Your task to perform on an android device: Open calendar and show me the fourth week of next month Image 0: 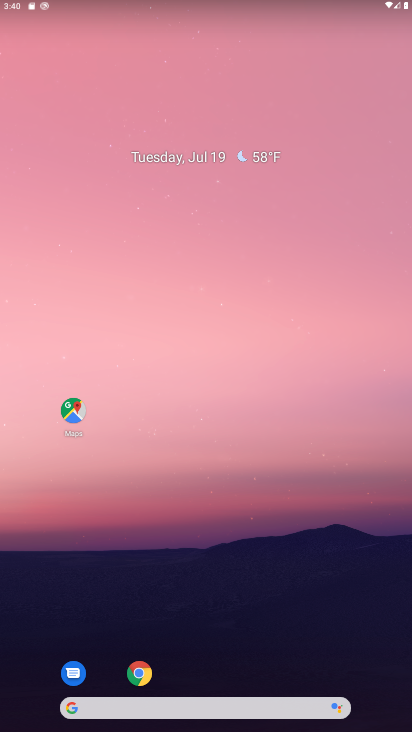
Step 0: drag from (153, 707) to (219, 176)
Your task to perform on an android device: Open calendar and show me the fourth week of next month Image 1: 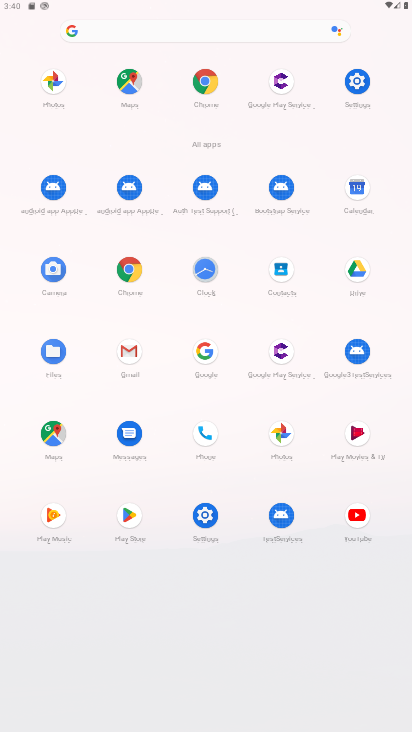
Step 1: click (364, 195)
Your task to perform on an android device: Open calendar and show me the fourth week of next month Image 2: 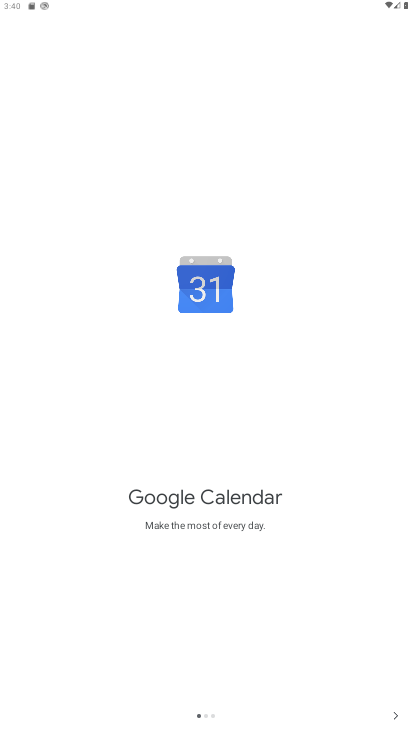
Step 2: click (393, 715)
Your task to perform on an android device: Open calendar and show me the fourth week of next month Image 3: 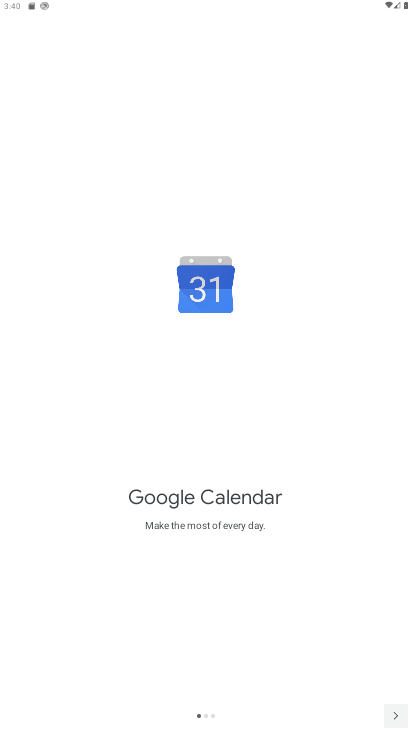
Step 3: click (393, 715)
Your task to perform on an android device: Open calendar and show me the fourth week of next month Image 4: 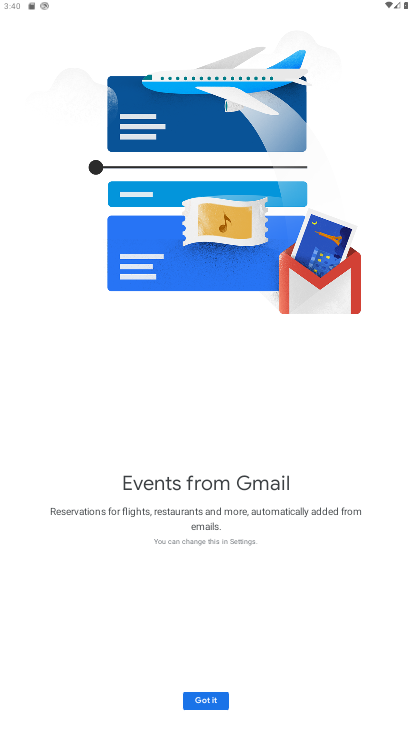
Step 4: click (393, 715)
Your task to perform on an android device: Open calendar and show me the fourth week of next month Image 5: 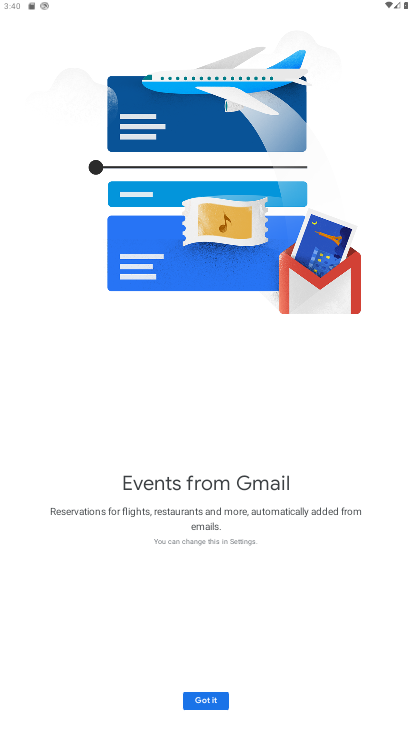
Step 5: click (226, 698)
Your task to perform on an android device: Open calendar and show me the fourth week of next month Image 6: 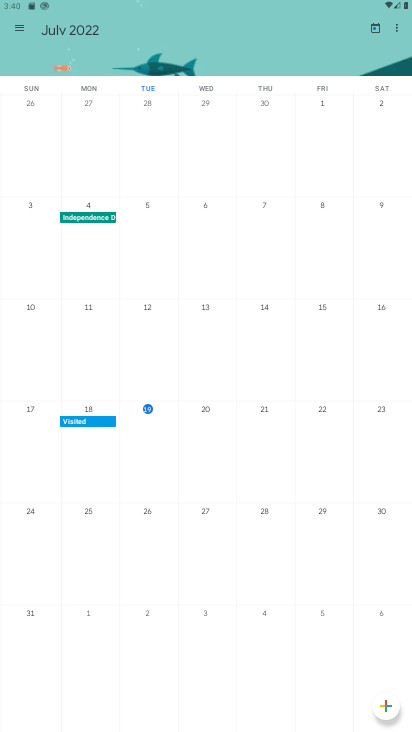
Step 6: click (60, 31)
Your task to perform on an android device: Open calendar and show me the fourth week of next month Image 7: 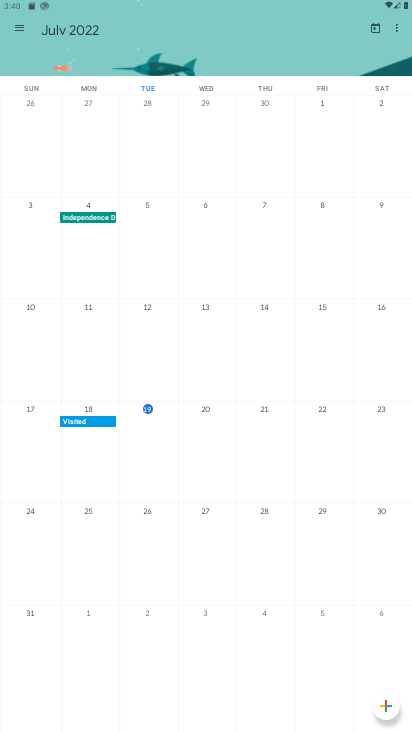
Step 7: click (20, 27)
Your task to perform on an android device: Open calendar and show me the fourth week of next month Image 8: 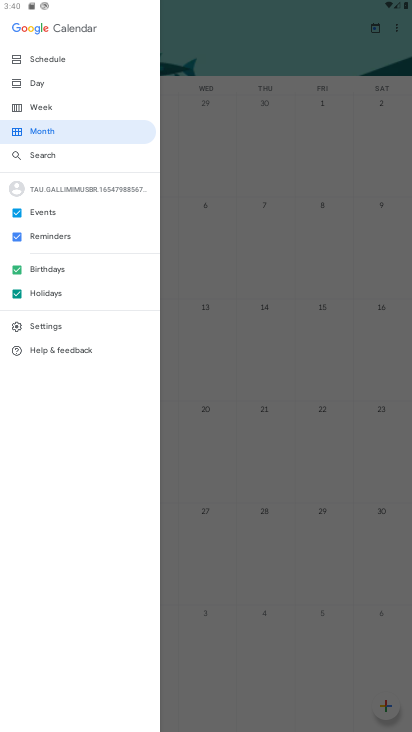
Step 8: click (263, 179)
Your task to perform on an android device: Open calendar and show me the fourth week of next month Image 9: 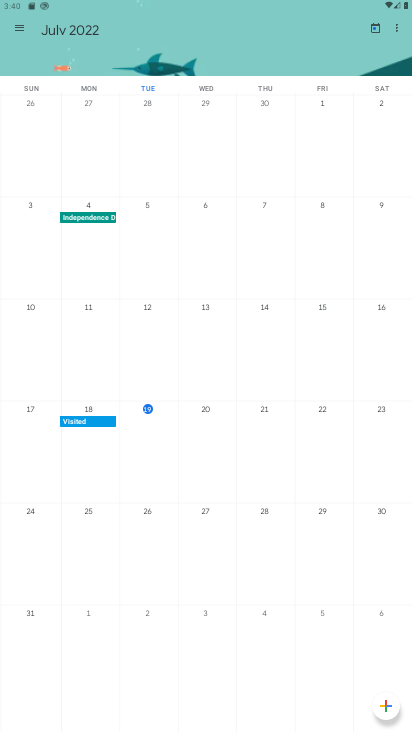
Step 9: drag from (403, 343) to (2, 498)
Your task to perform on an android device: Open calendar and show me the fourth week of next month Image 10: 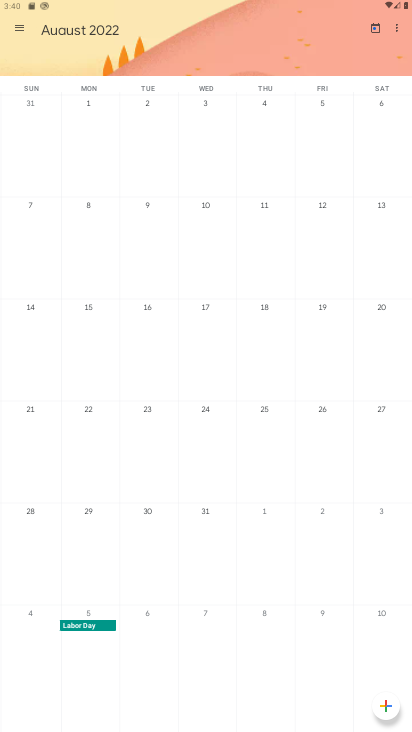
Step 10: click (201, 405)
Your task to perform on an android device: Open calendar and show me the fourth week of next month Image 11: 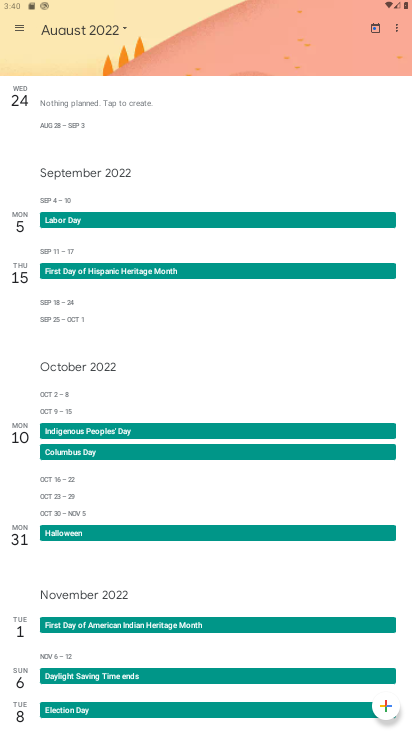
Step 11: click (13, 21)
Your task to perform on an android device: Open calendar and show me the fourth week of next month Image 12: 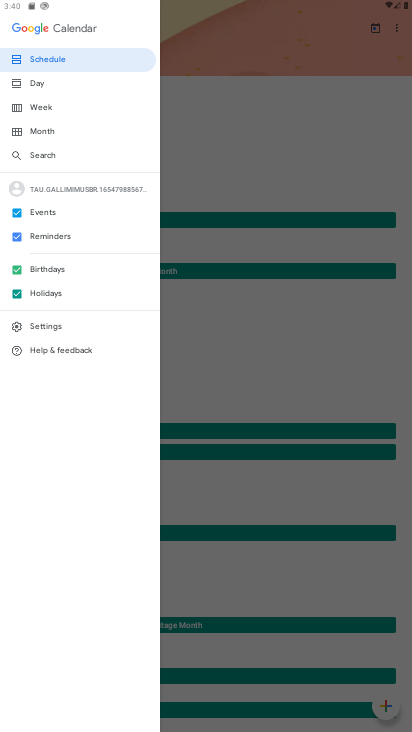
Step 12: click (43, 100)
Your task to perform on an android device: Open calendar and show me the fourth week of next month Image 13: 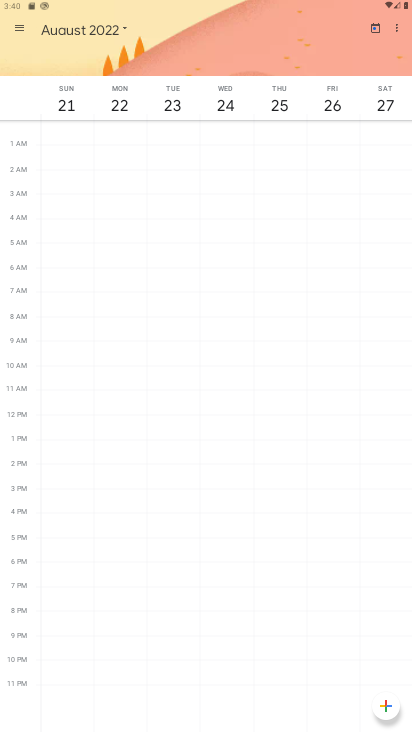
Step 13: task complete